Your task to perform on an android device: Open Maps and search for coffee Image 0: 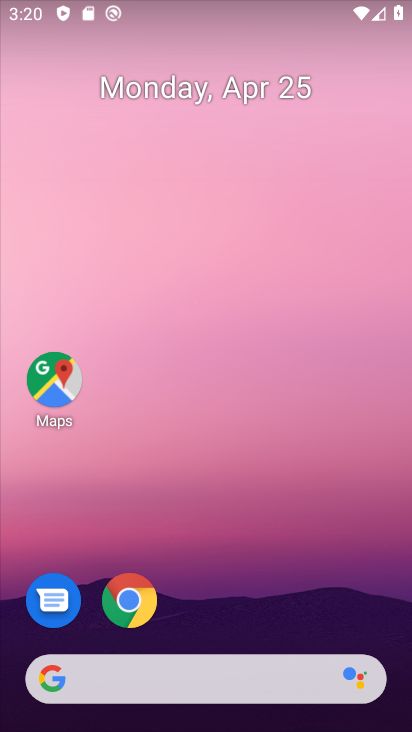
Step 0: drag from (266, 559) to (185, 10)
Your task to perform on an android device: Open Maps and search for coffee Image 1: 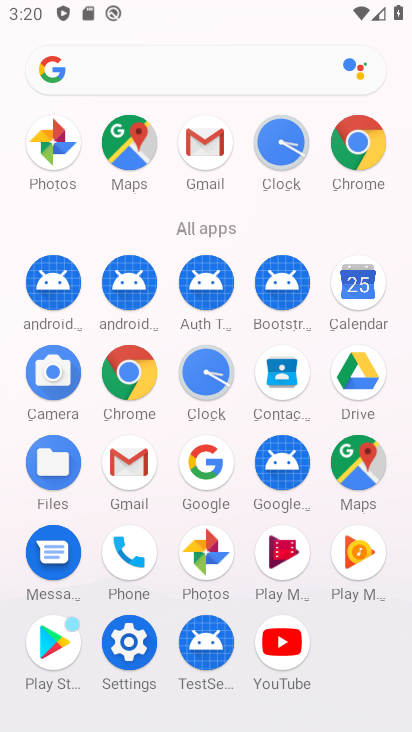
Step 1: click (139, 152)
Your task to perform on an android device: Open Maps and search for coffee Image 2: 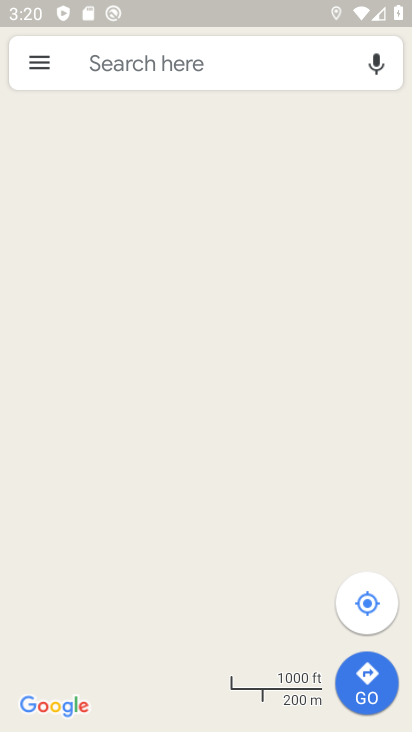
Step 2: click (241, 69)
Your task to perform on an android device: Open Maps and search for coffee Image 3: 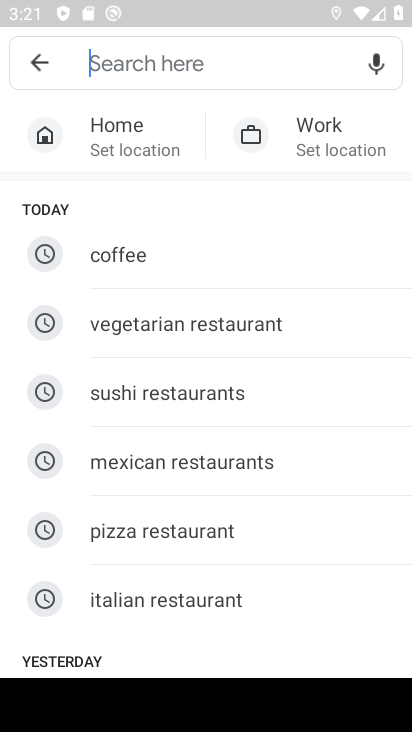
Step 3: type "coffee"
Your task to perform on an android device: Open Maps and search for coffee Image 4: 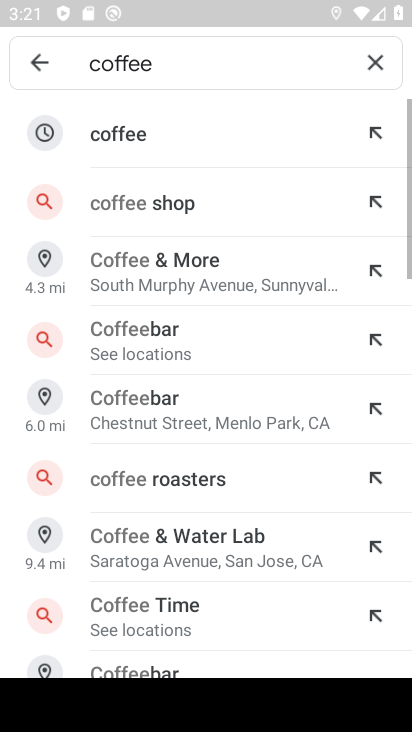
Step 4: click (169, 156)
Your task to perform on an android device: Open Maps and search for coffee Image 5: 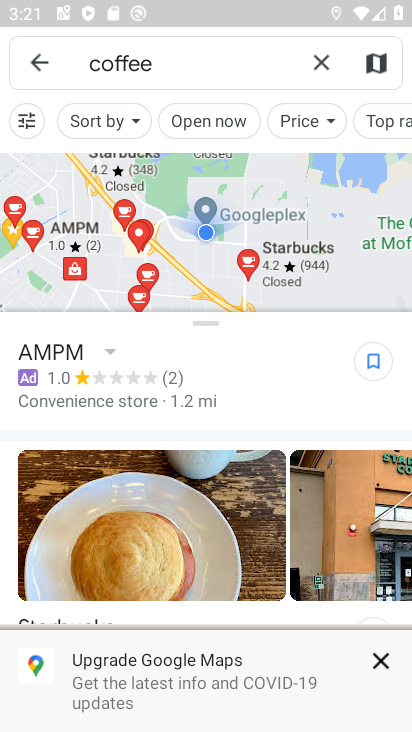
Step 5: task complete